Your task to perform on an android device: Check the weather Image 0: 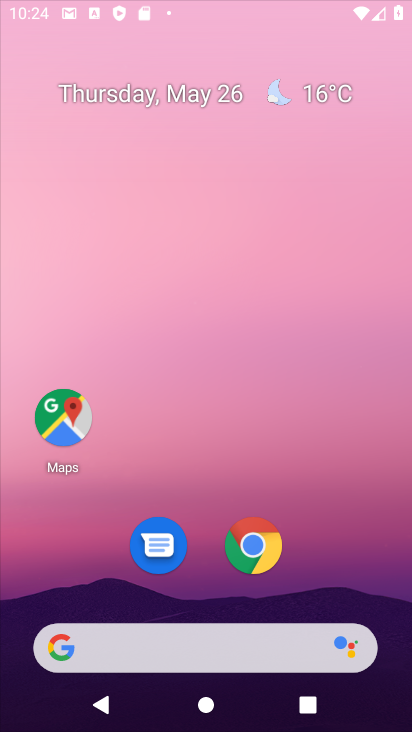
Step 0: press home button
Your task to perform on an android device: Check the weather Image 1: 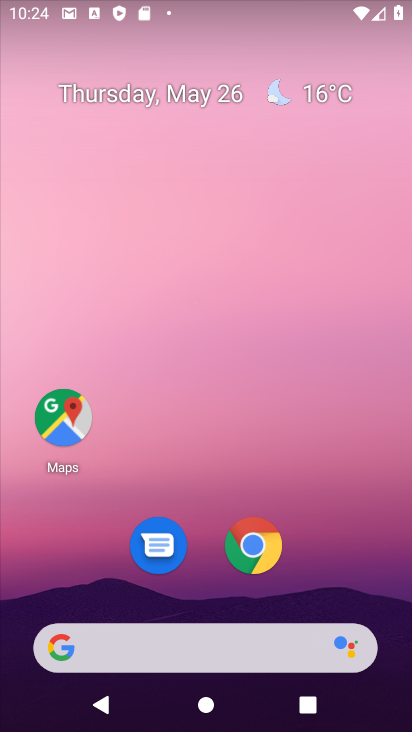
Step 1: click (67, 632)
Your task to perform on an android device: Check the weather Image 2: 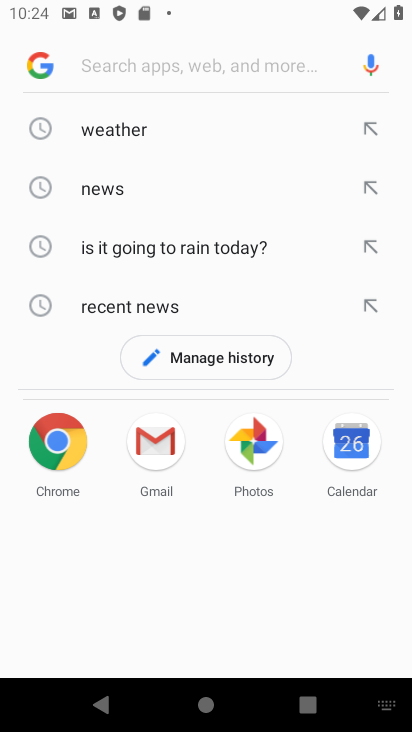
Step 2: click (113, 131)
Your task to perform on an android device: Check the weather Image 3: 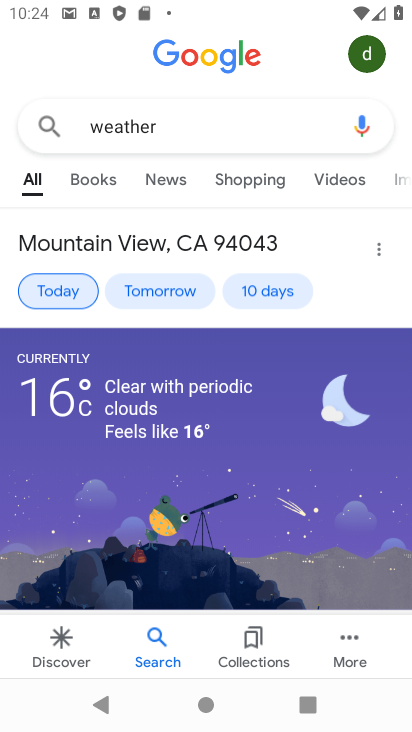
Step 3: task complete